Your task to perform on an android device: toggle pop-ups in chrome Image 0: 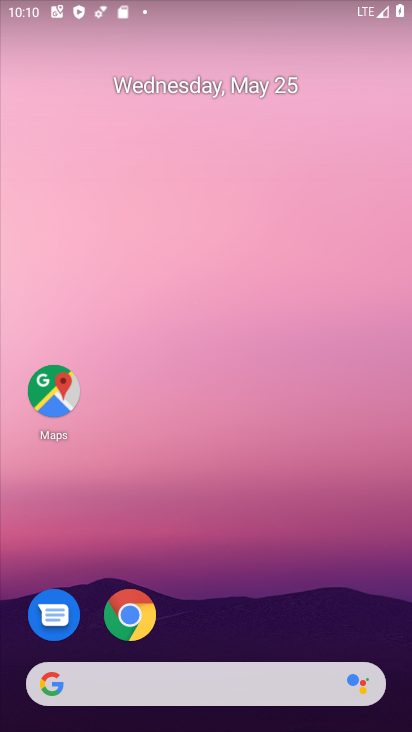
Step 0: click (128, 612)
Your task to perform on an android device: toggle pop-ups in chrome Image 1: 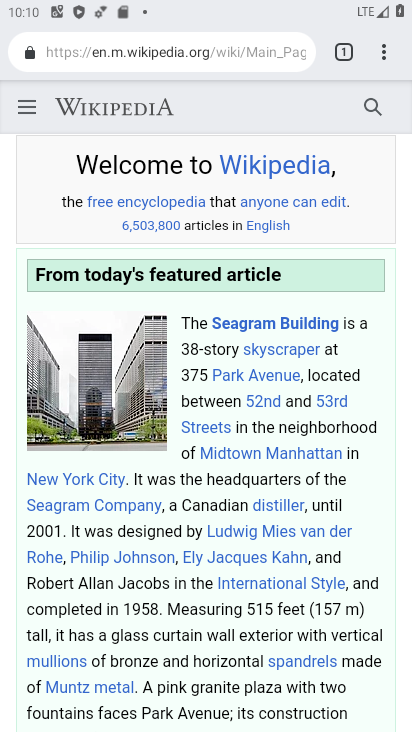
Step 1: click (379, 54)
Your task to perform on an android device: toggle pop-ups in chrome Image 2: 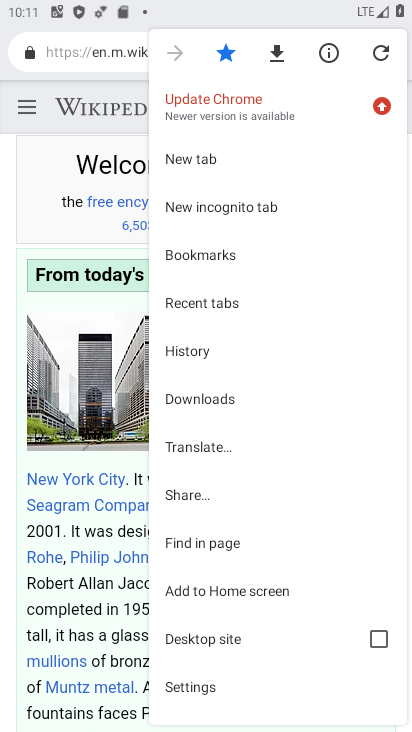
Step 2: click (226, 685)
Your task to perform on an android device: toggle pop-ups in chrome Image 3: 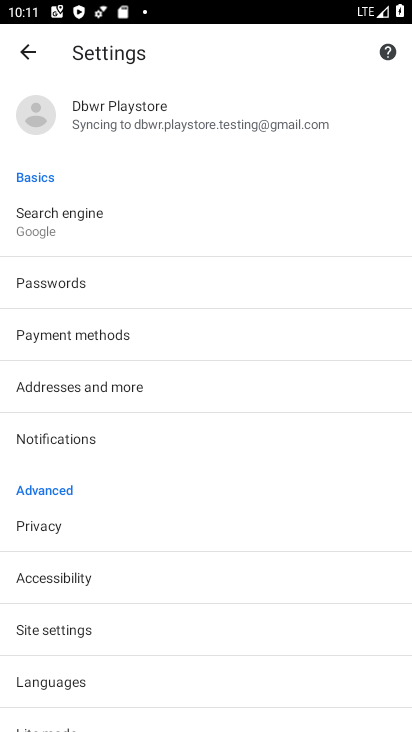
Step 3: click (228, 624)
Your task to perform on an android device: toggle pop-ups in chrome Image 4: 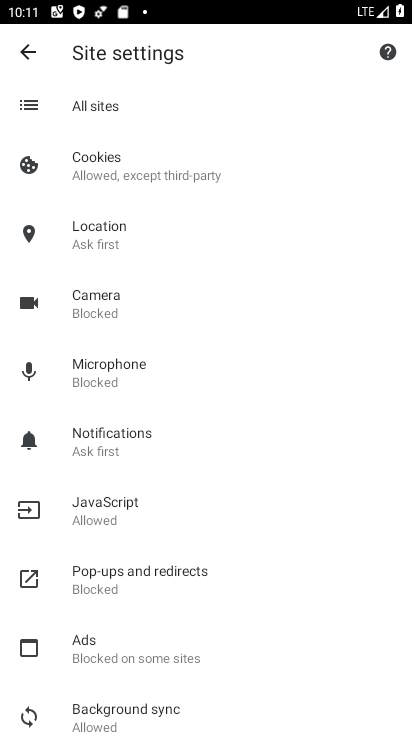
Step 4: click (175, 585)
Your task to perform on an android device: toggle pop-ups in chrome Image 5: 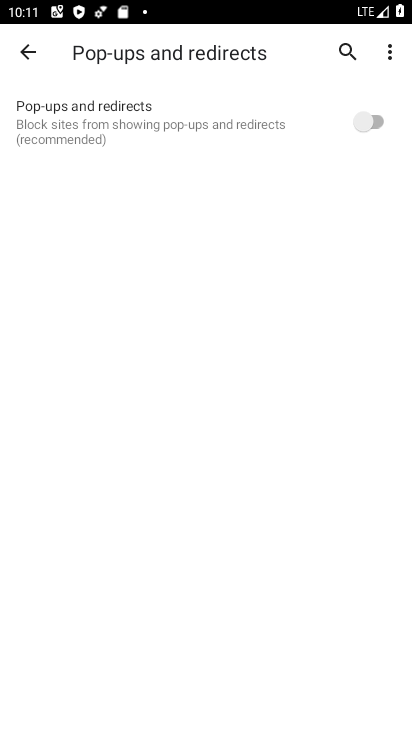
Step 5: click (378, 121)
Your task to perform on an android device: toggle pop-ups in chrome Image 6: 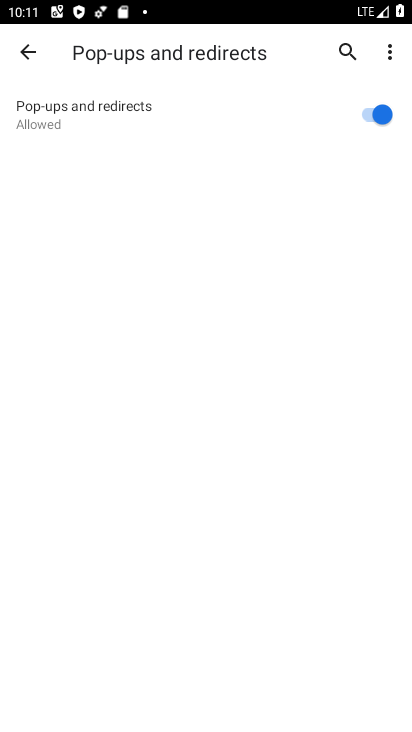
Step 6: task complete